Your task to perform on an android device: Turn off the flashlight Image 0: 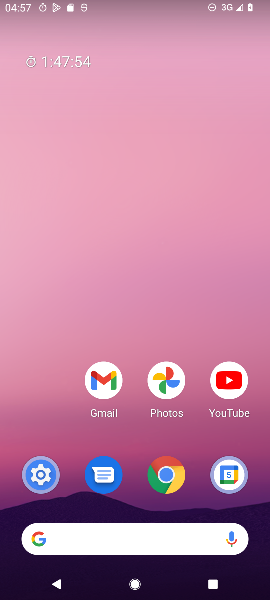
Step 0: press home button
Your task to perform on an android device: Turn off the flashlight Image 1: 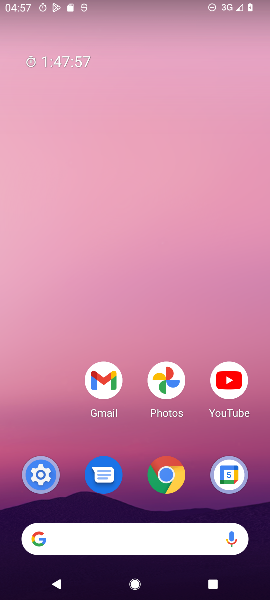
Step 1: task complete